Your task to perform on an android device: delete browsing data in the chrome app Image 0: 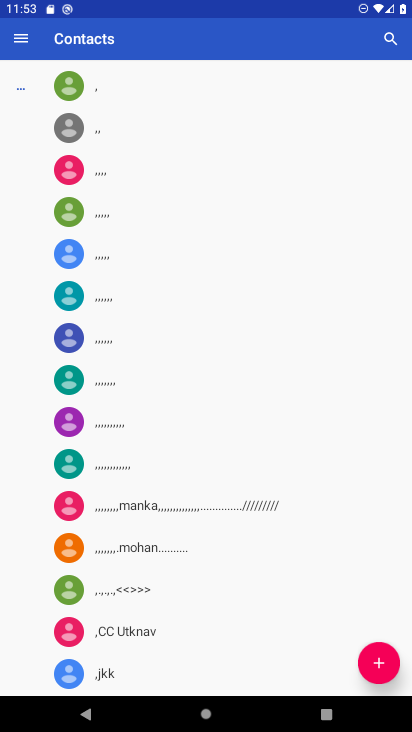
Step 0: press home button
Your task to perform on an android device: delete browsing data in the chrome app Image 1: 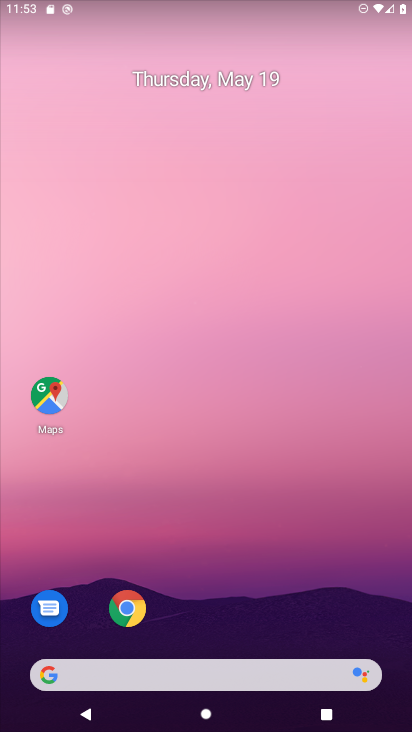
Step 1: click (133, 612)
Your task to perform on an android device: delete browsing data in the chrome app Image 2: 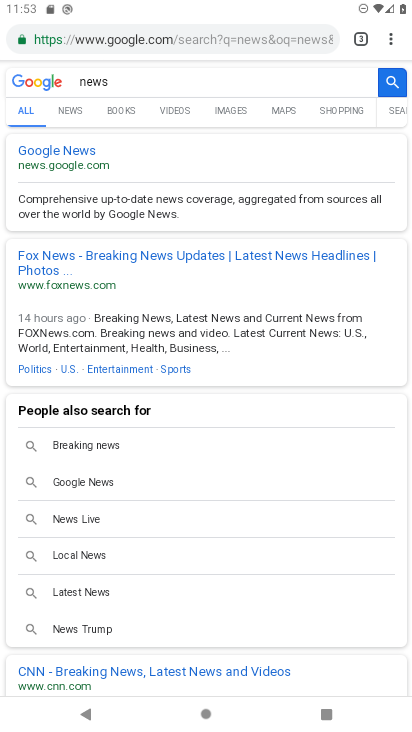
Step 2: drag from (390, 31) to (265, 442)
Your task to perform on an android device: delete browsing data in the chrome app Image 3: 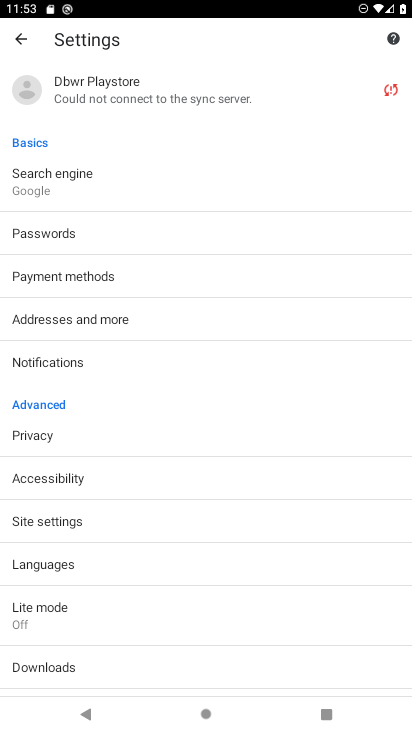
Step 3: click (85, 442)
Your task to perform on an android device: delete browsing data in the chrome app Image 4: 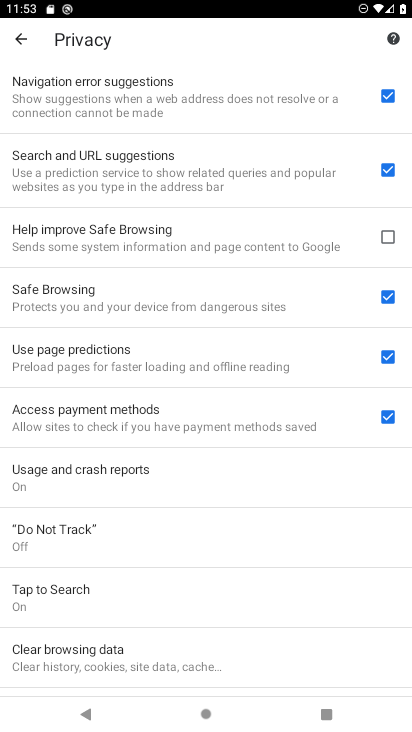
Step 4: click (125, 653)
Your task to perform on an android device: delete browsing data in the chrome app Image 5: 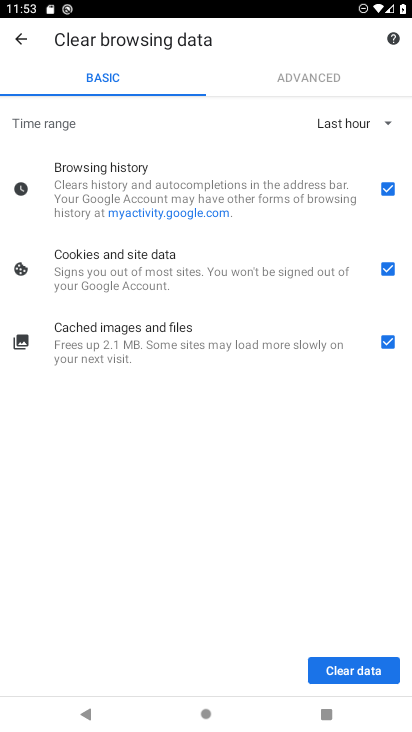
Step 5: click (331, 664)
Your task to perform on an android device: delete browsing data in the chrome app Image 6: 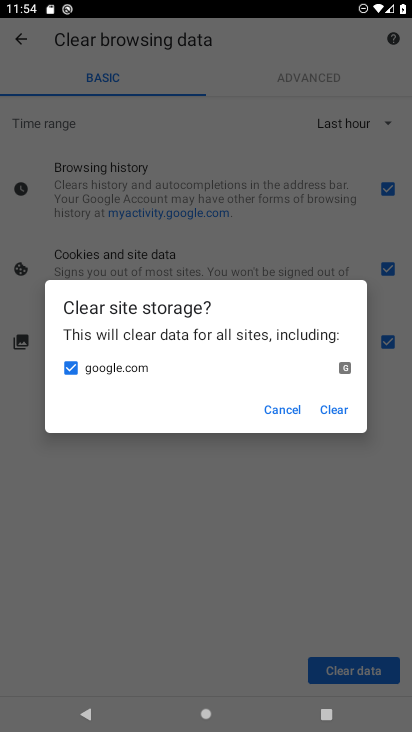
Step 6: click (324, 413)
Your task to perform on an android device: delete browsing data in the chrome app Image 7: 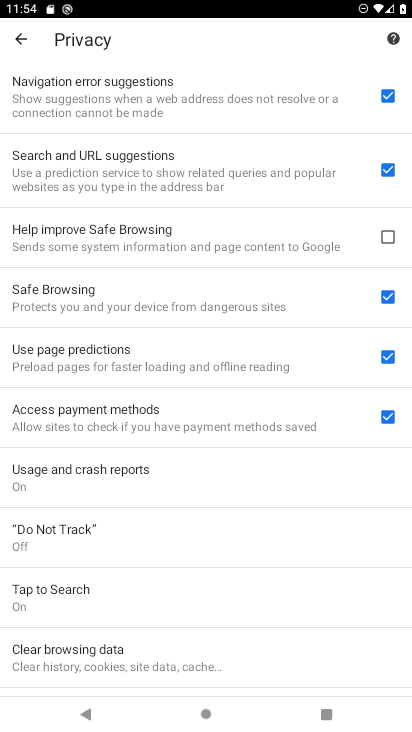
Step 7: task complete